Your task to perform on an android device: show emergency info Image 0: 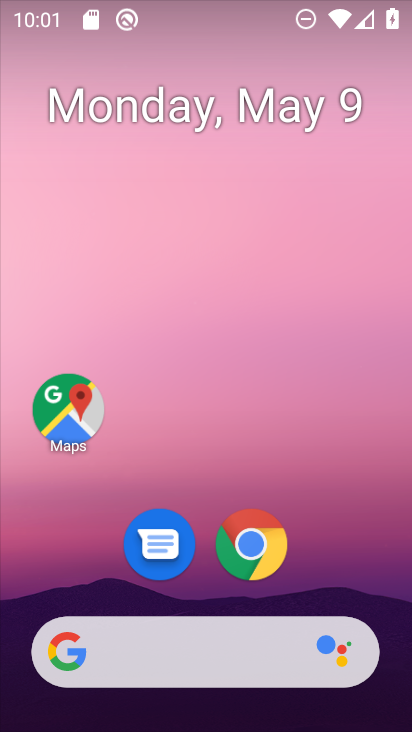
Step 0: drag from (336, 575) to (260, 63)
Your task to perform on an android device: show emergency info Image 1: 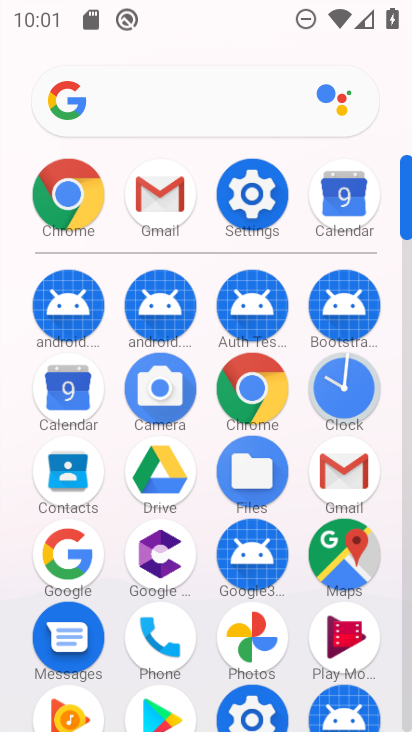
Step 1: click (260, 190)
Your task to perform on an android device: show emergency info Image 2: 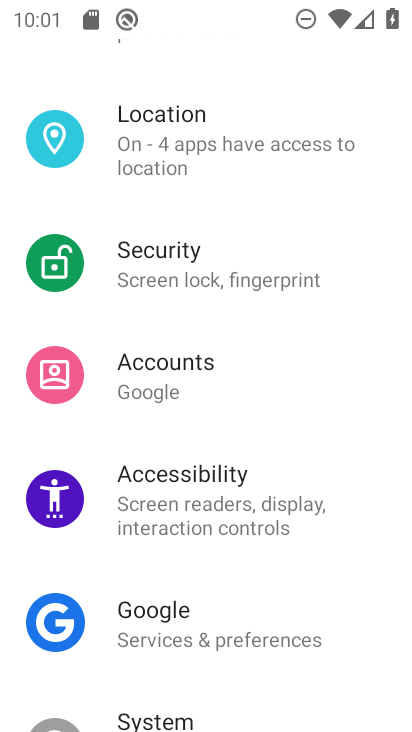
Step 2: drag from (248, 565) to (244, 195)
Your task to perform on an android device: show emergency info Image 3: 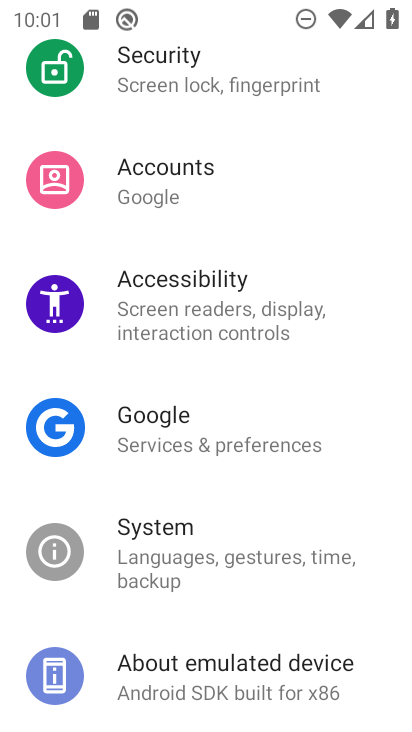
Step 3: click (220, 662)
Your task to perform on an android device: show emergency info Image 4: 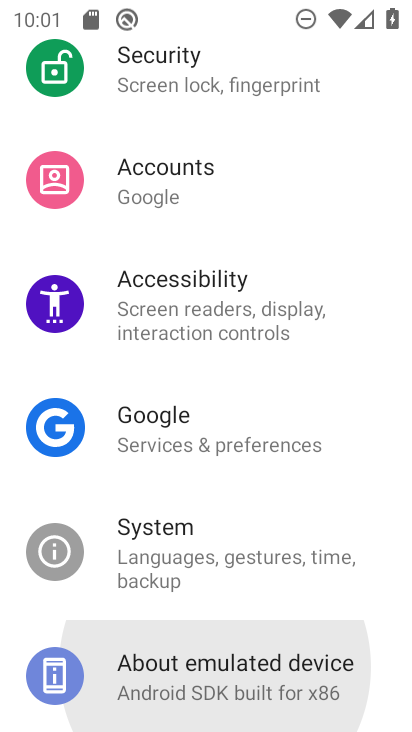
Step 4: click (220, 662)
Your task to perform on an android device: show emergency info Image 5: 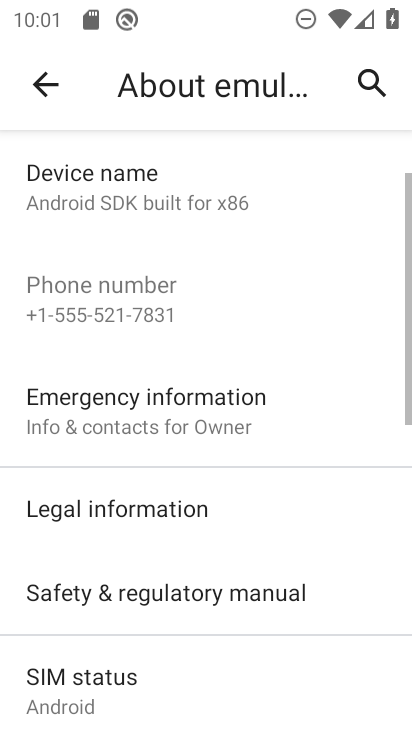
Step 5: click (180, 407)
Your task to perform on an android device: show emergency info Image 6: 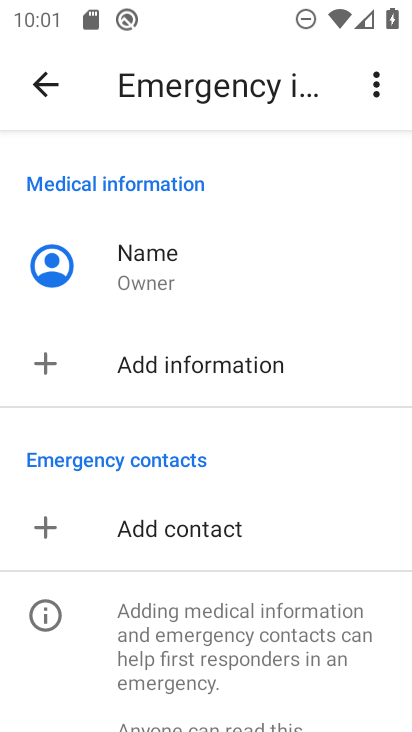
Step 6: task complete